Your task to perform on an android device: open chrome and create a bookmark for the current page Image 0: 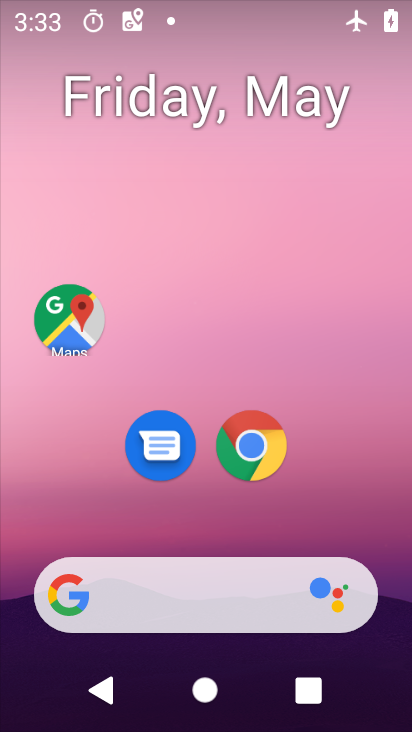
Step 0: drag from (231, 702) to (317, 252)
Your task to perform on an android device: open chrome and create a bookmark for the current page Image 1: 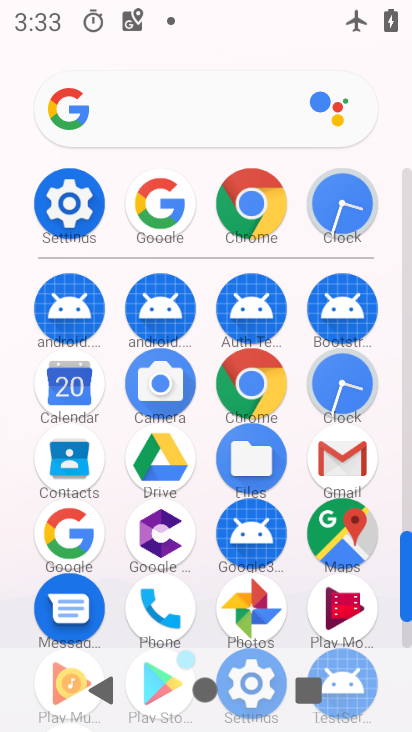
Step 1: click (260, 218)
Your task to perform on an android device: open chrome and create a bookmark for the current page Image 2: 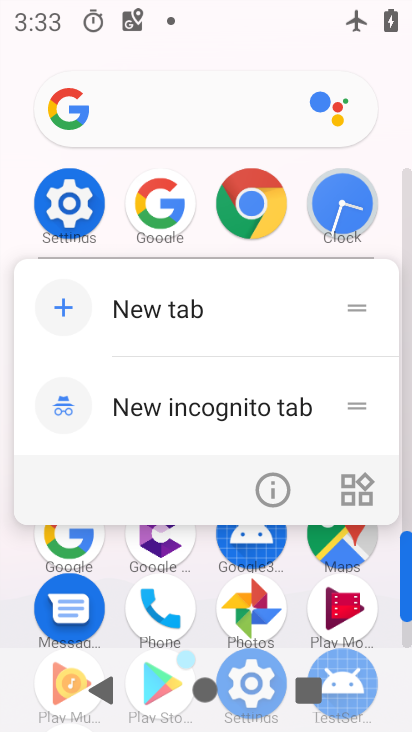
Step 2: click (260, 212)
Your task to perform on an android device: open chrome and create a bookmark for the current page Image 3: 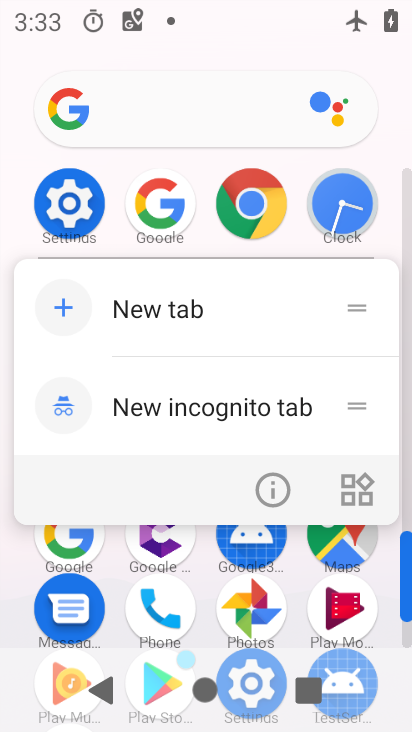
Step 3: click (260, 212)
Your task to perform on an android device: open chrome and create a bookmark for the current page Image 4: 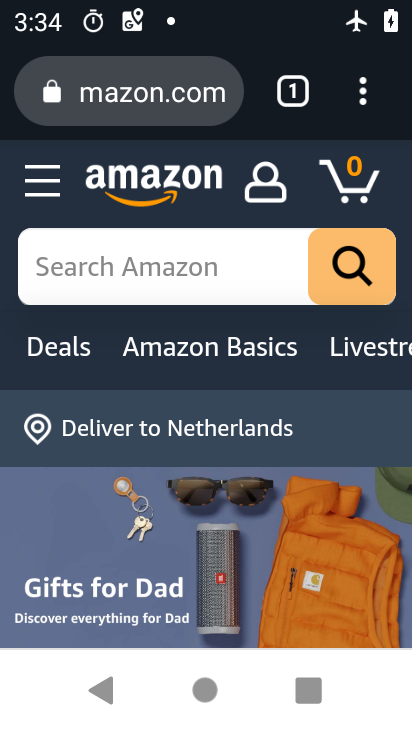
Step 4: click (369, 99)
Your task to perform on an android device: open chrome and create a bookmark for the current page Image 5: 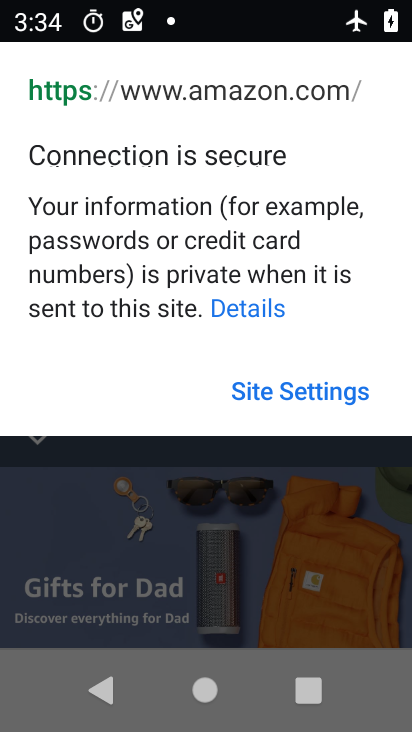
Step 5: task complete